Your task to perform on an android device: Search for Mexican restaurants on Maps Image 0: 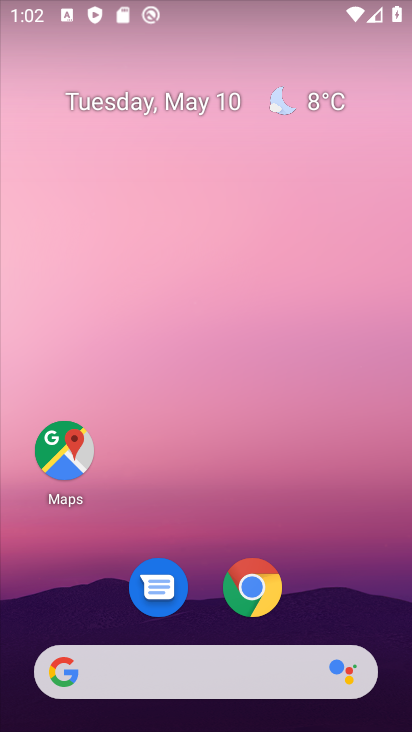
Step 0: click (69, 449)
Your task to perform on an android device: Search for Mexican restaurants on Maps Image 1: 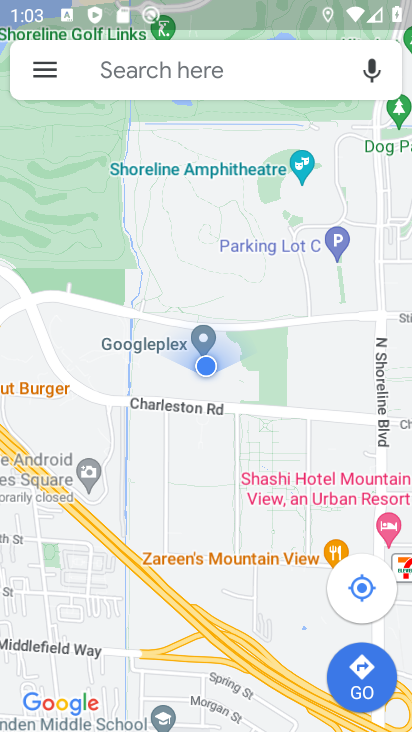
Step 1: click (111, 65)
Your task to perform on an android device: Search for Mexican restaurants on Maps Image 2: 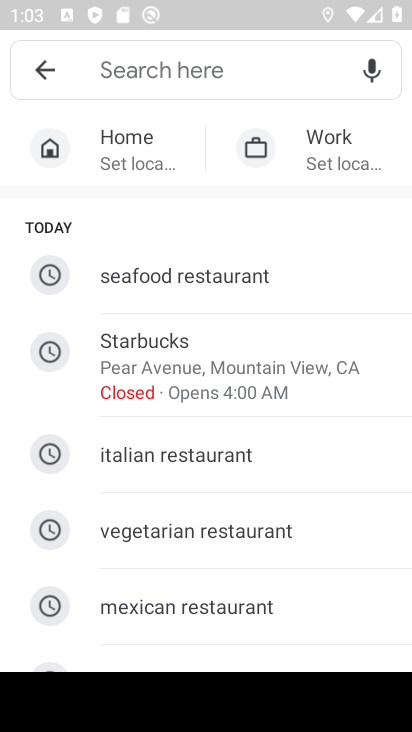
Step 2: type "Mexican restaurants"
Your task to perform on an android device: Search for Mexican restaurants on Maps Image 3: 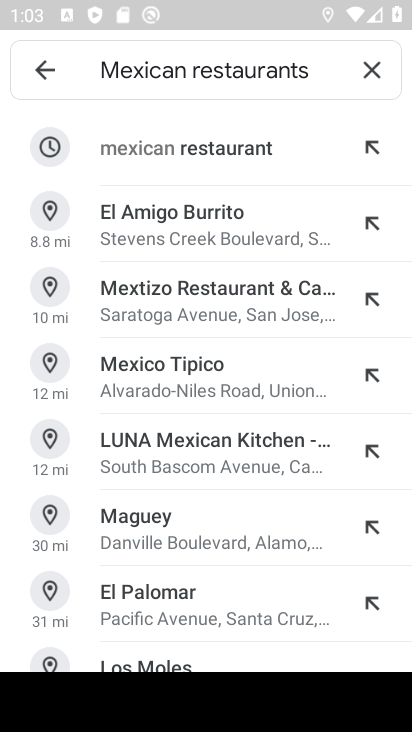
Step 3: click (165, 145)
Your task to perform on an android device: Search for Mexican restaurants on Maps Image 4: 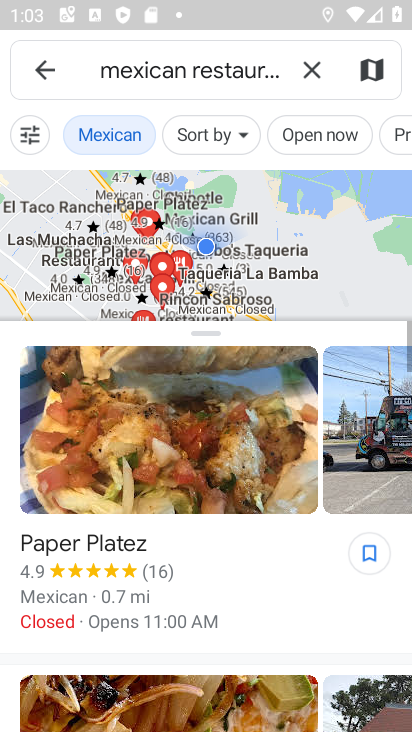
Step 4: task complete